Your task to perform on an android device: turn off picture-in-picture Image 0: 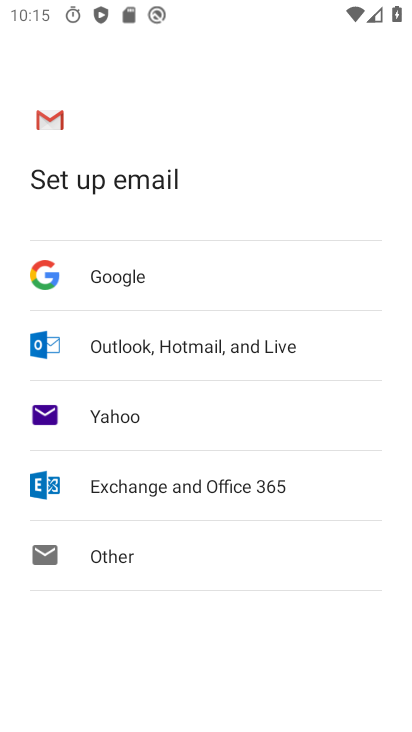
Step 0: press home button
Your task to perform on an android device: turn off picture-in-picture Image 1: 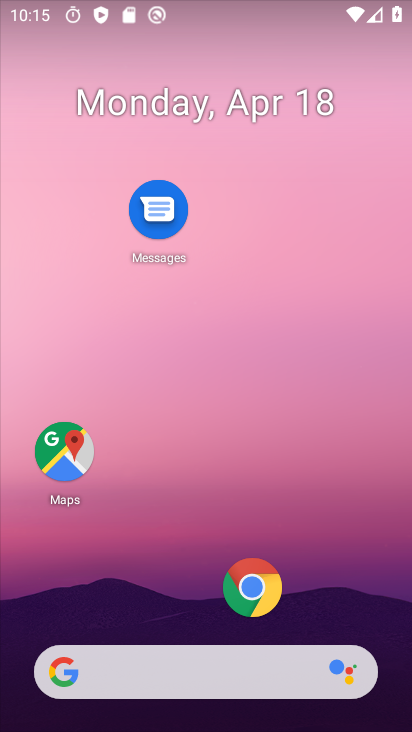
Step 1: click (243, 595)
Your task to perform on an android device: turn off picture-in-picture Image 2: 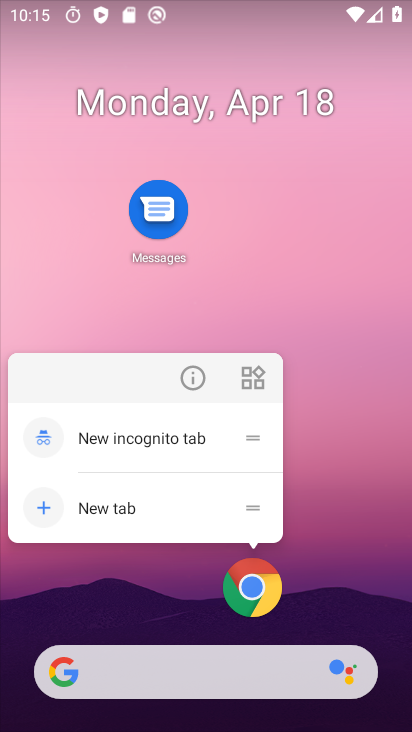
Step 2: click (191, 368)
Your task to perform on an android device: turn off picture-in-picture Image 3: 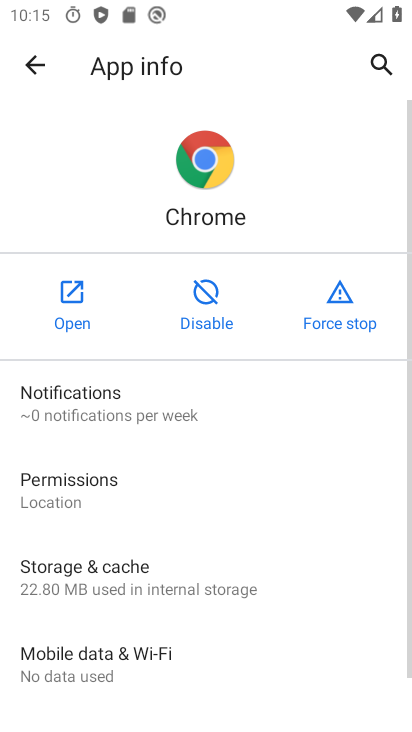
Step 3: drag from (138, 623) to (246, 68)
Your task to perform on an android device: turn off picture-in-picture Image 4: 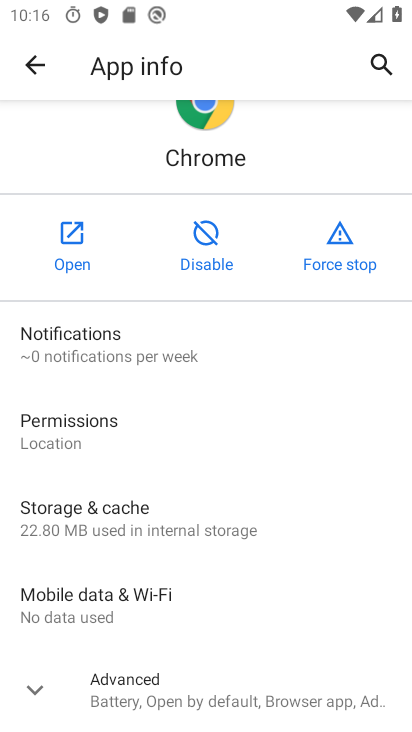
Step 4: click (139, 695)
Your task to perform on an android device: turn off picture-in-picture Image 5: 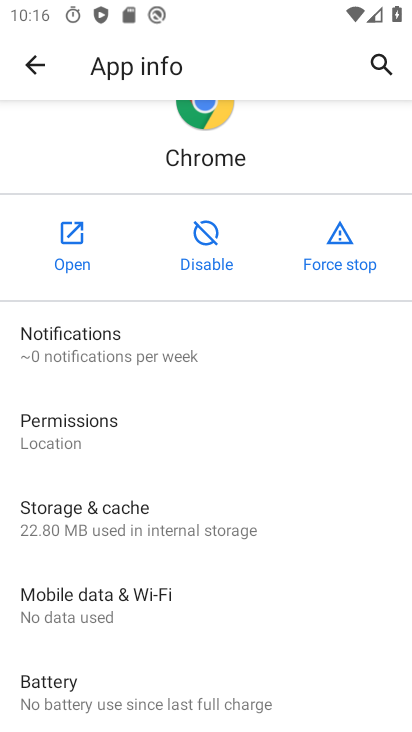
Step 5: drag from (145, 637) to (211, 206)
Your task to perform on an android device: turn off picture-in-picture Image 6: 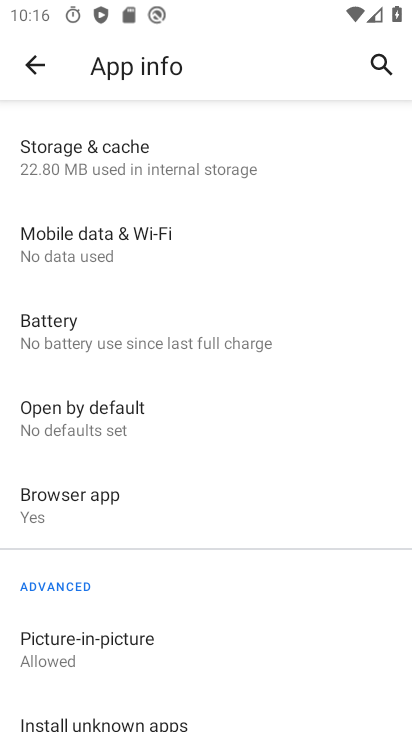
Step 6: click (103, 648)
Your task to perform on an android device: turn off picture-in-picture Image 7: 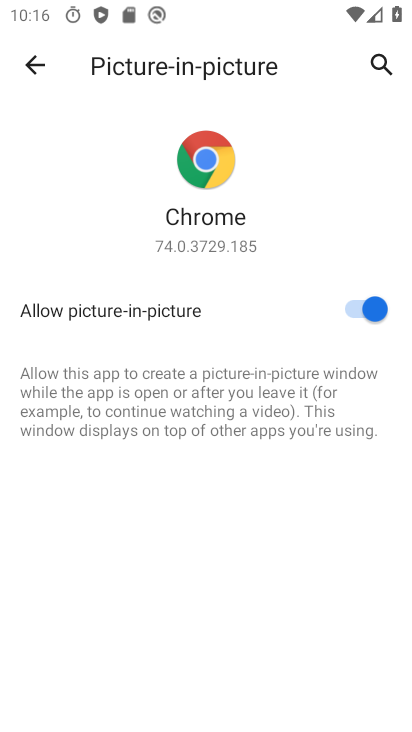
Step 7: click (340, 302)
Your task to perform on an android device: turn off picture-in-picture Image 8: 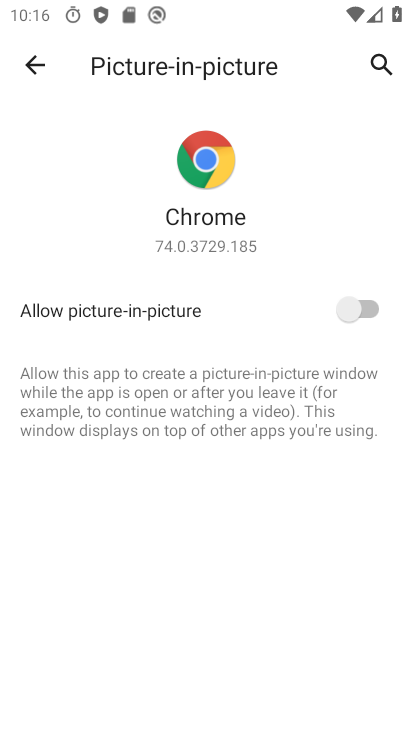
Step 8: task complete